Your task to perform on an android device: Open CNN.com Image 0: 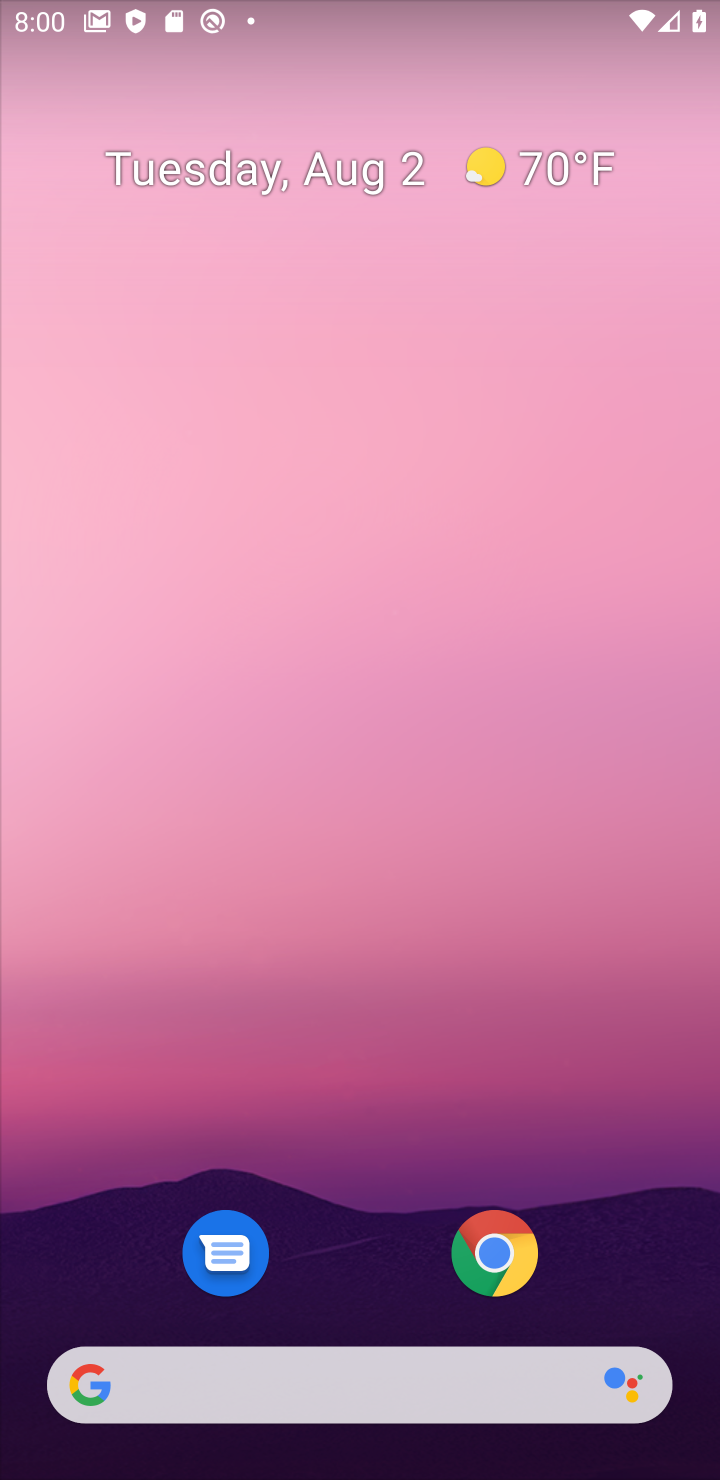
Step 0: click (499, 1244)
Your task to perform on an android device: Open CNN.com Image 1: 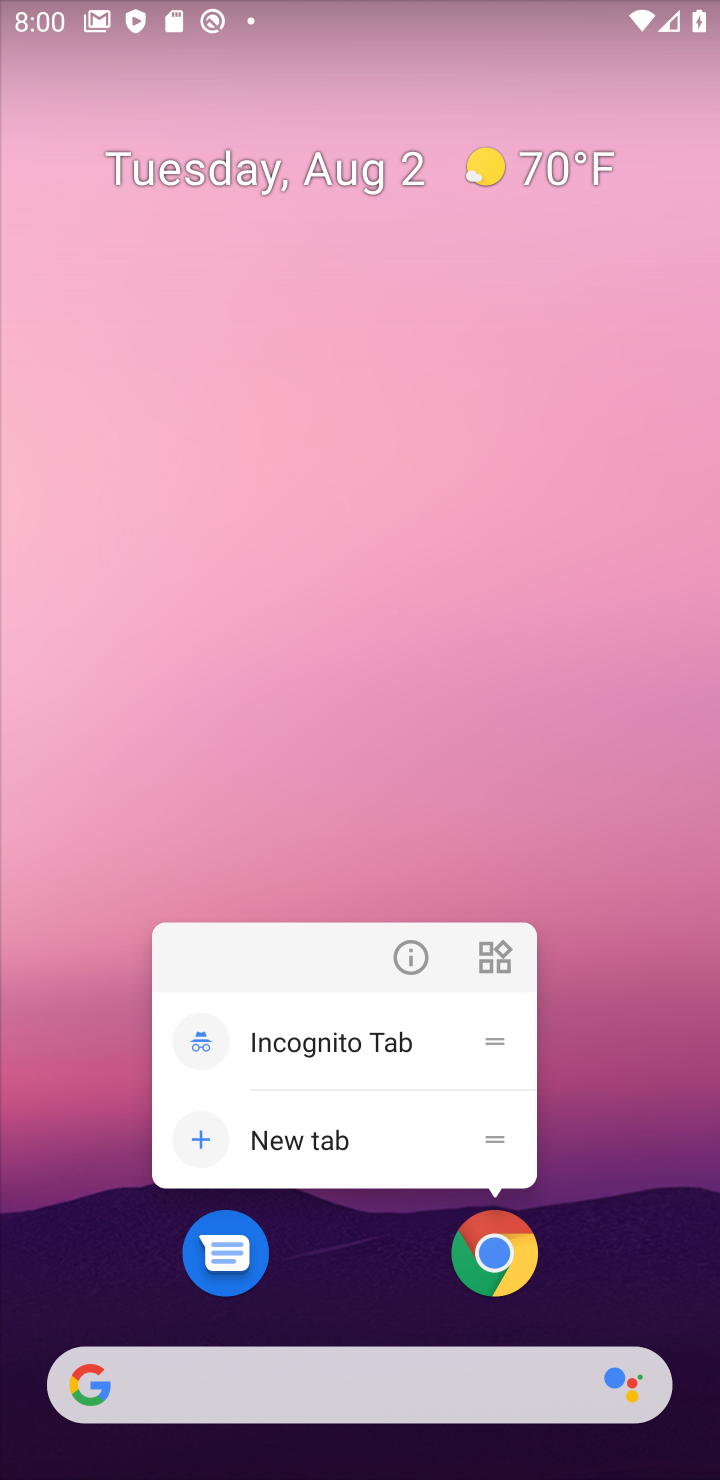
Step 1: click (499, 1244)
Your task to perform on an android device: Open CNN.com Image 2: 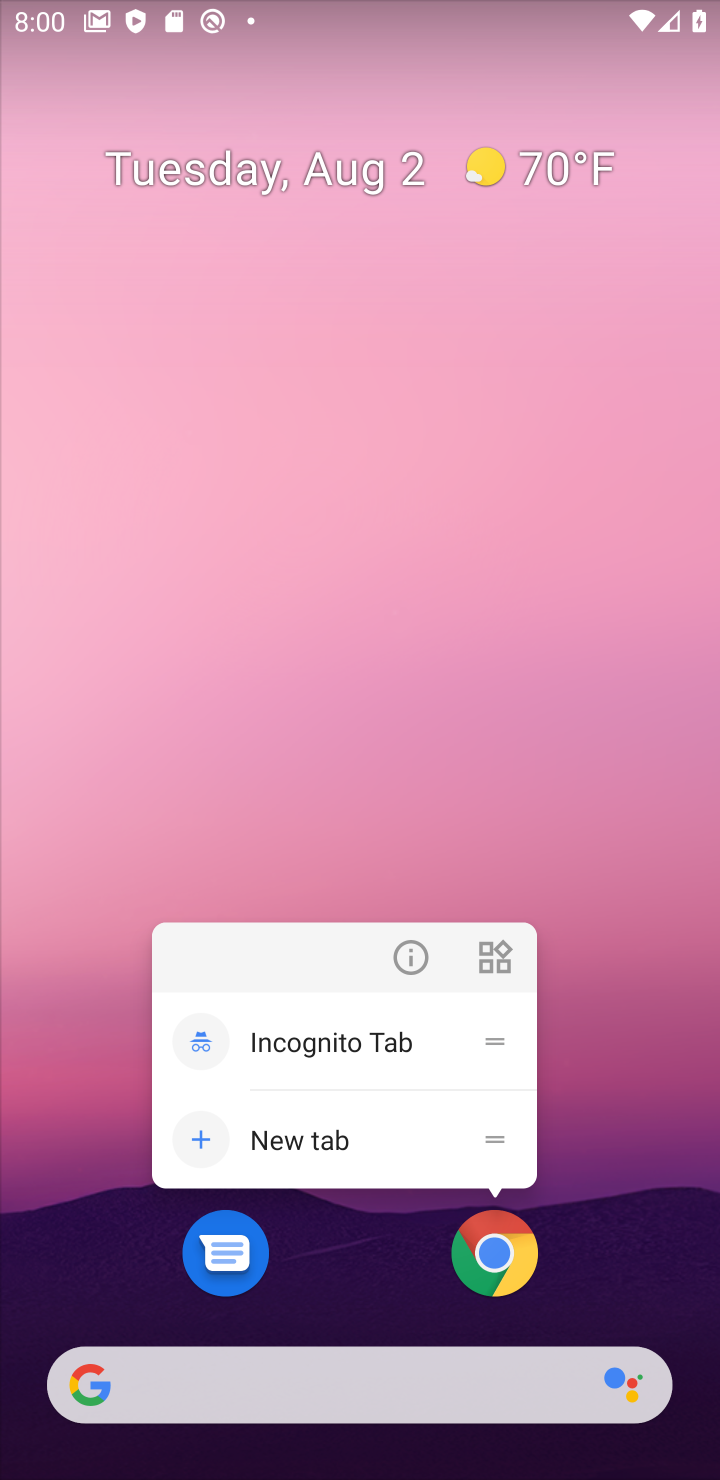
Step 2: click (499, 1244)
Your task to perform on an android device: Open CNN.com Image 3: 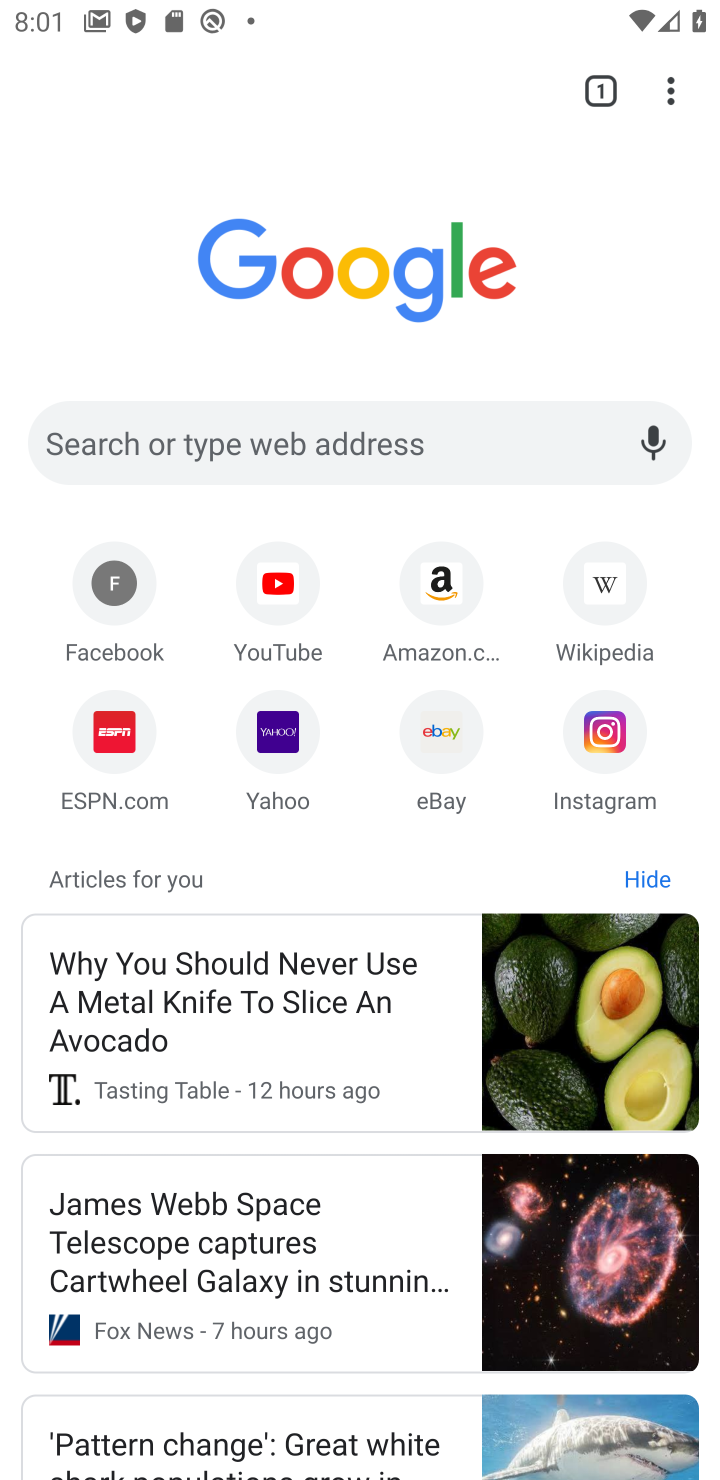
Step 3: click (400, 434)
Your task to perform on an android device: Open CNN.com Image 4: 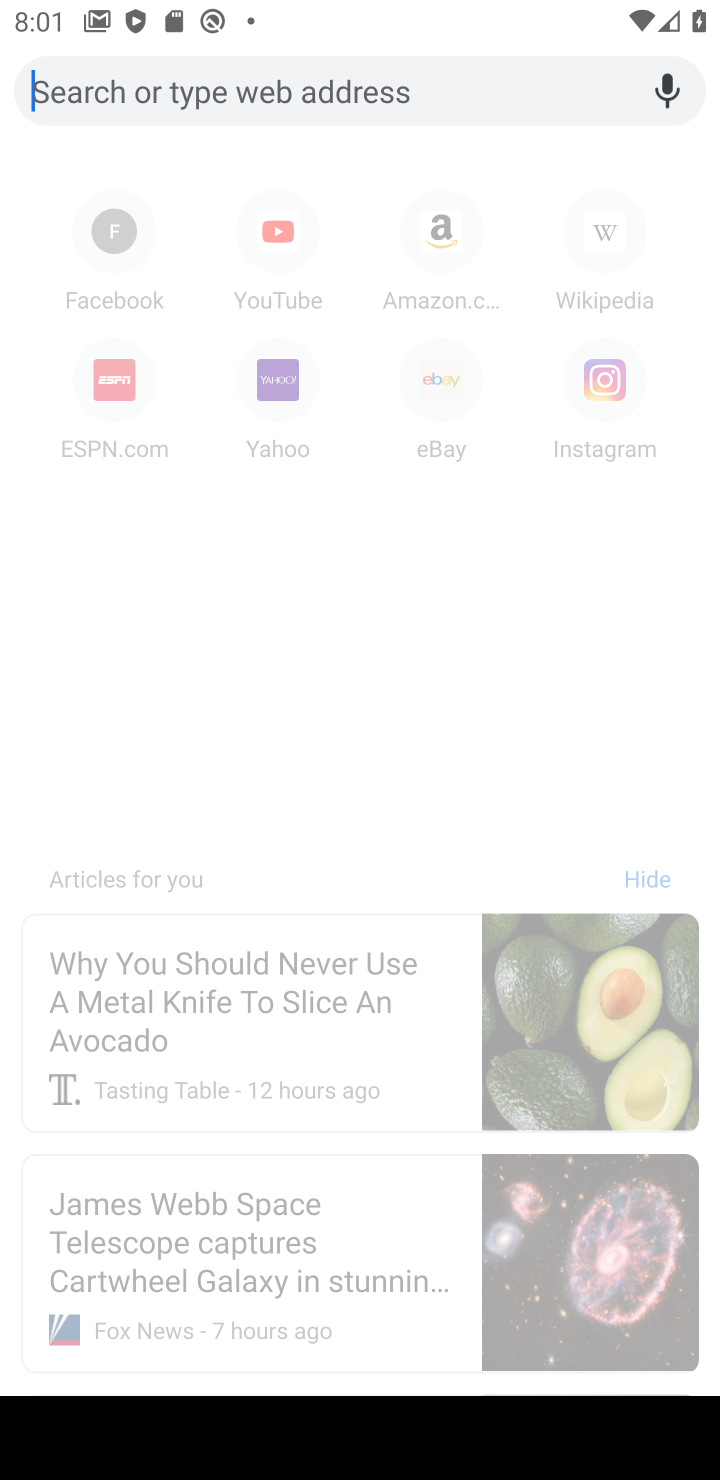
Step 4: type "CNN.com"
Your task to perform on an android device: Open CNN.com Image 5: 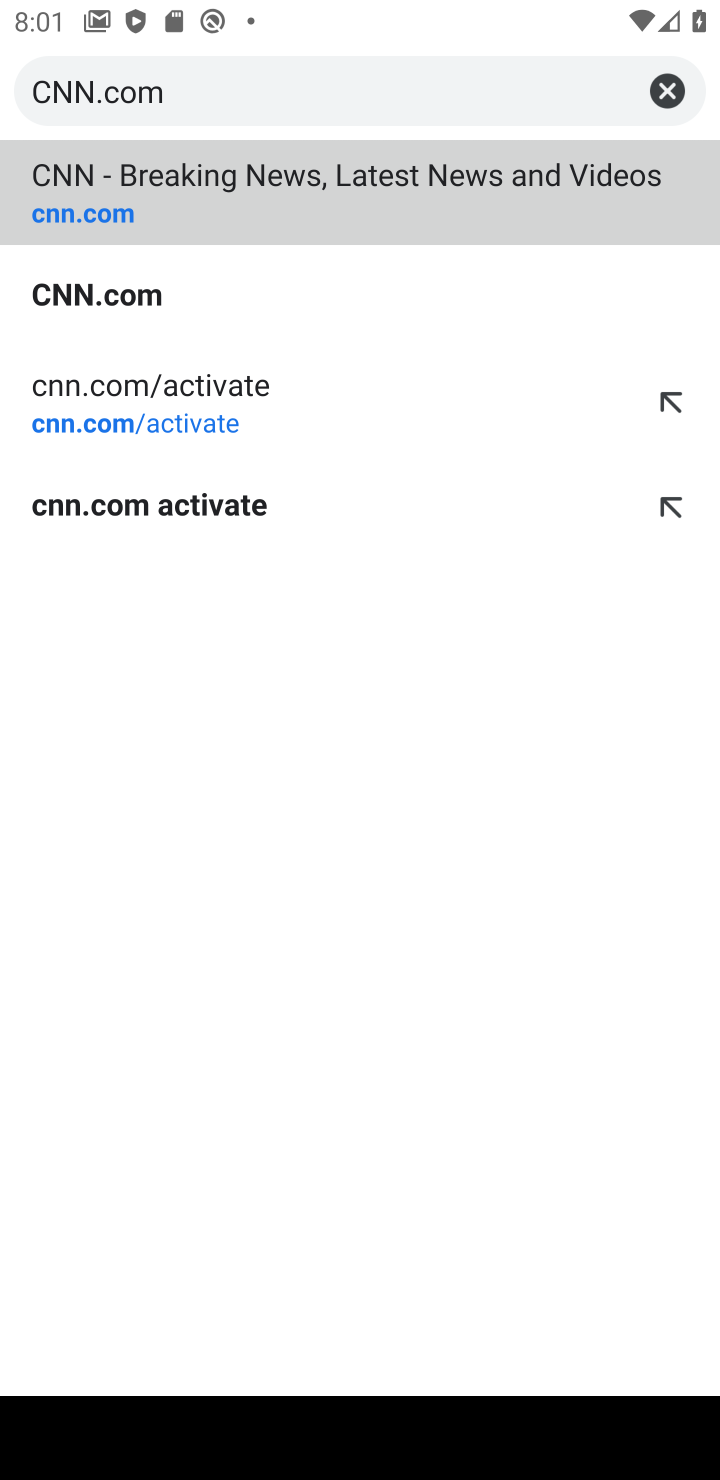
Step 5: click (264, 177)
Your task to perform on an android device: Open CNN.com Image 6: 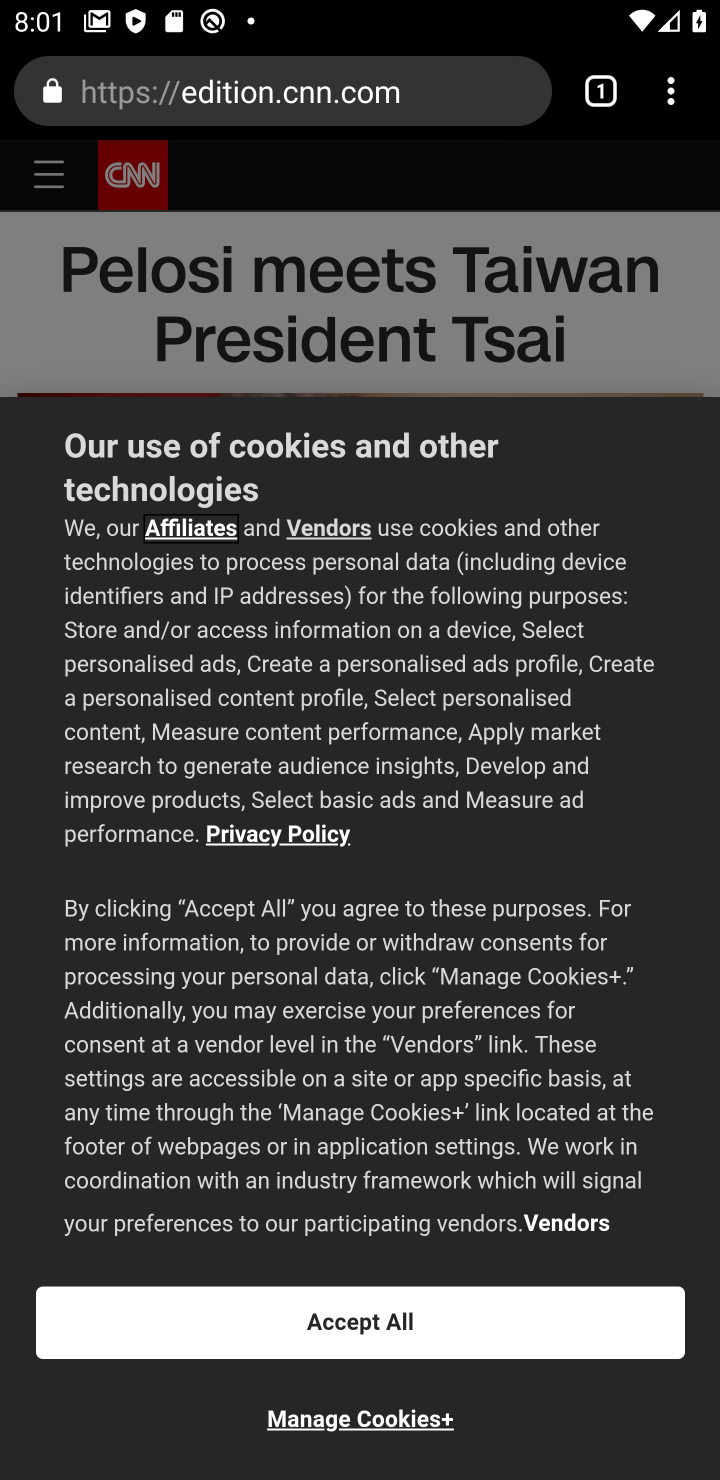
Step 6: click (364, 1320)
Your task to perform on an android device: Open CNN.com Image 7: 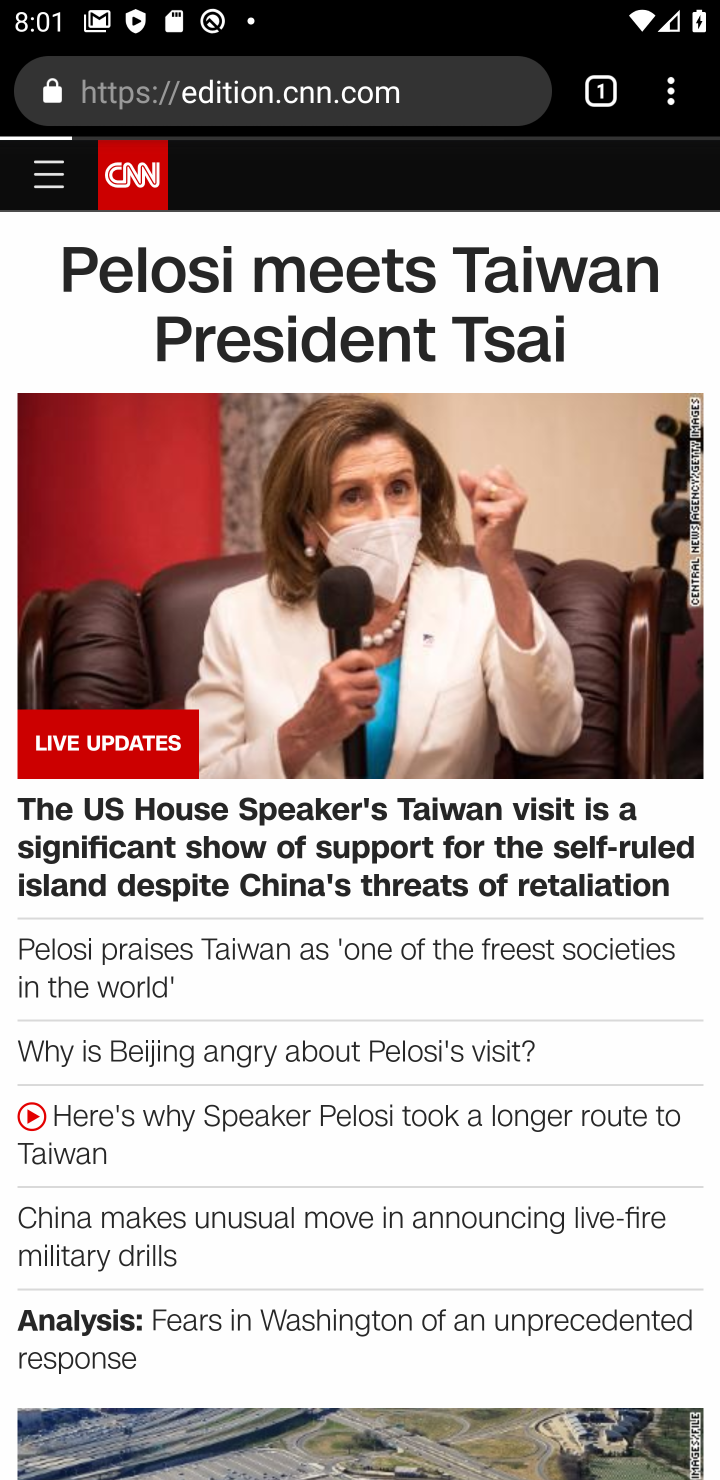
Step 7: task complete